Your task to perform on an android device: turn vacation reply on in the gmail app Image 0: 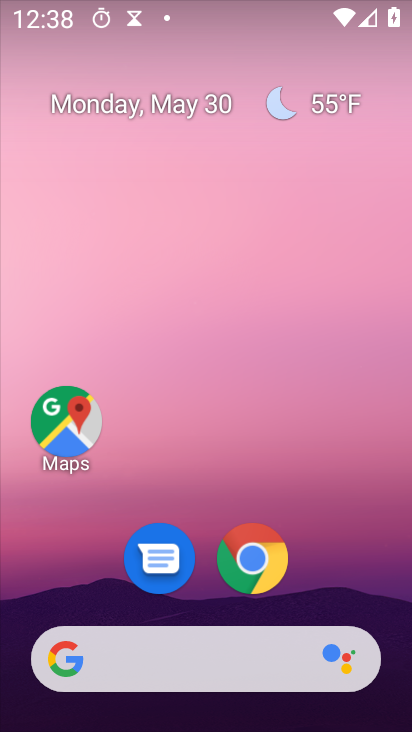
Step 0: drag from (371, 413) to (407, 117)
Your task to perform on an android device: turn vacation reply on in the gmail app Image 1: 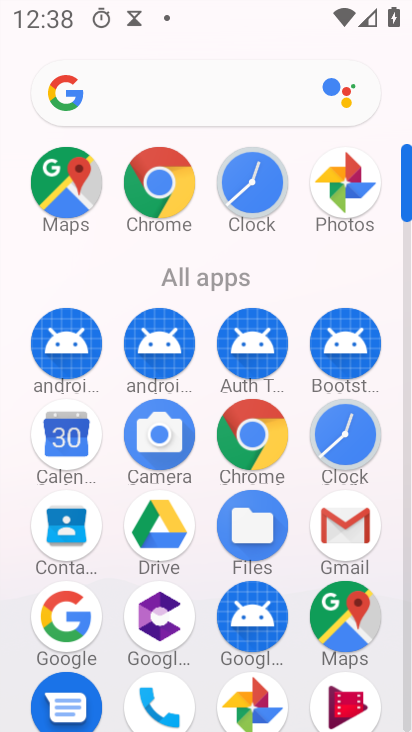
Step 1: click (342, 511)
Your task to perform on an android device: turn vacation reply on in the gmail app Image 2: 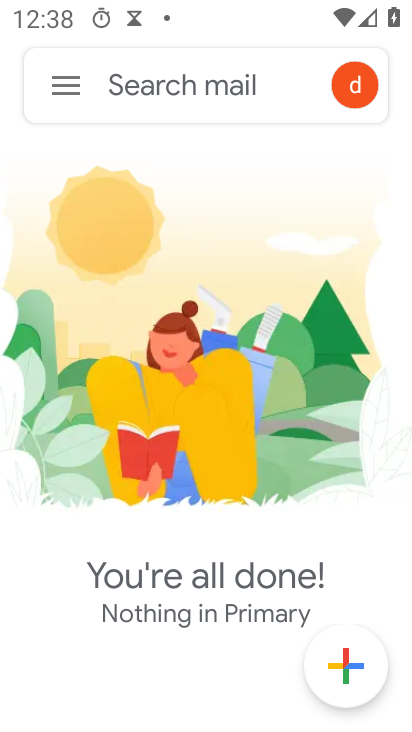
Step 2: click (69, 93)
Your task to perform on an android device: turn vacation reply on in the gmail app Image 3: 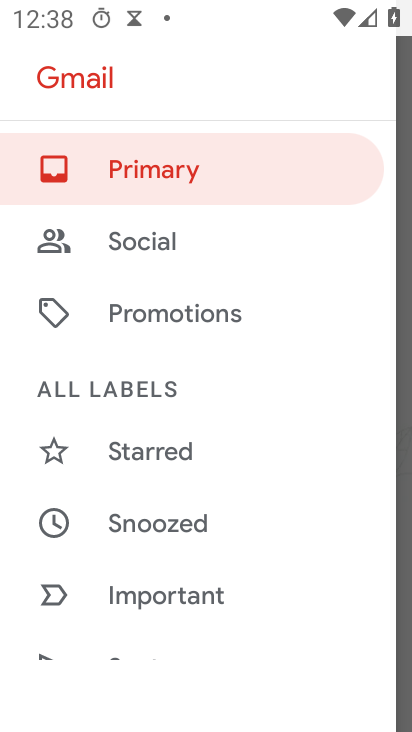
Step 3: drag from (131, 556) to (200, 185)
Your task to perform on an android device: turn vacation reply on in the gmail app Image 4: 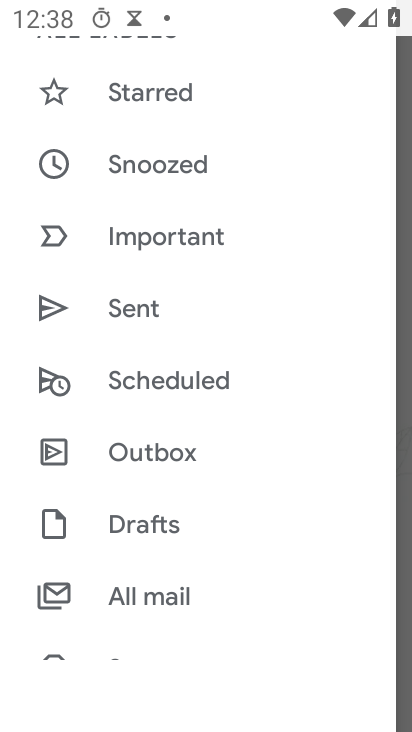
Step 4: drag from (168, 561) to (220, 145)
Your task to perform on an android device: turn vacation reply on in the gmail app Image 5: 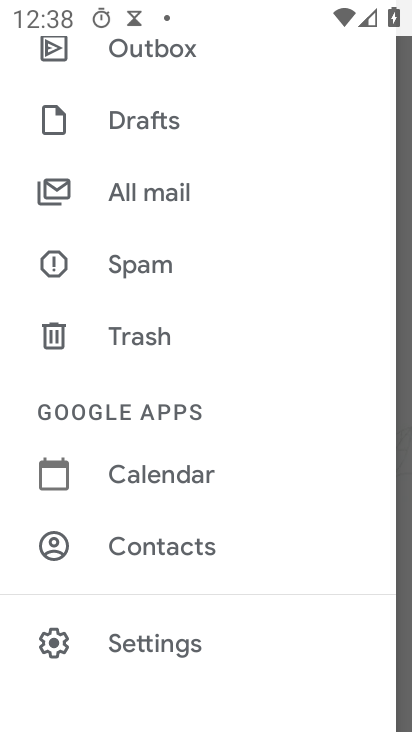
Step 5: click (132, 626)
Your task to perform on an android device: turn vacation reply on in the gmail app Image 6: 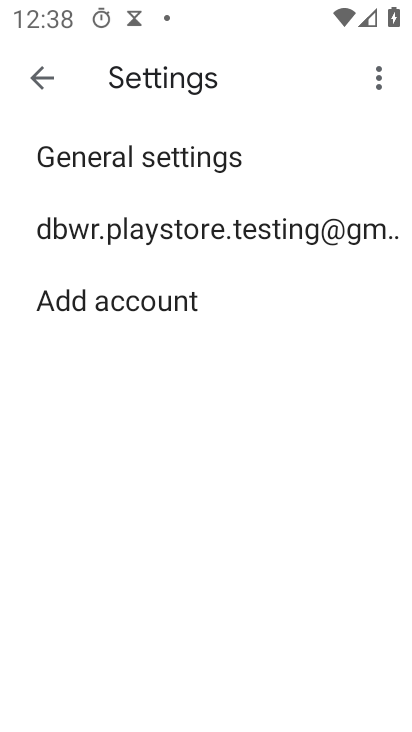
Step 6: click (86, 247)
Your task to perform on an android device: turn vacation reply on in the gmail app Image 7: 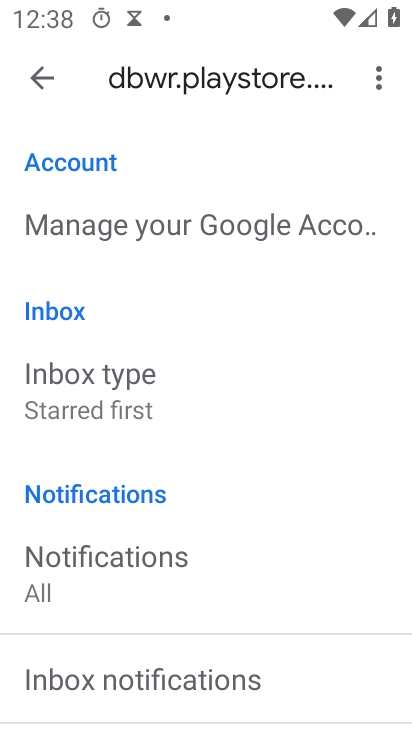
Step 7: drag from (112, 582) to (160, 172)
Your task to perform on an android device: turn vacation reply on in the gmail app Image 8: 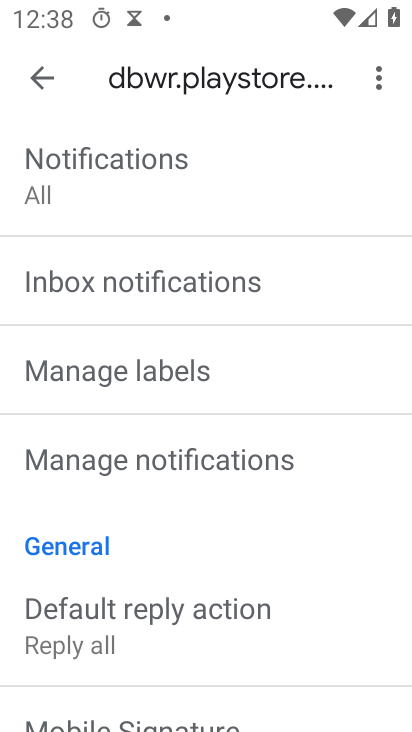
Step 8: drag from (172, 626) to (226, 199)
Your task to perform on an android device: turn vacation reply on in the gmail app Image 9: 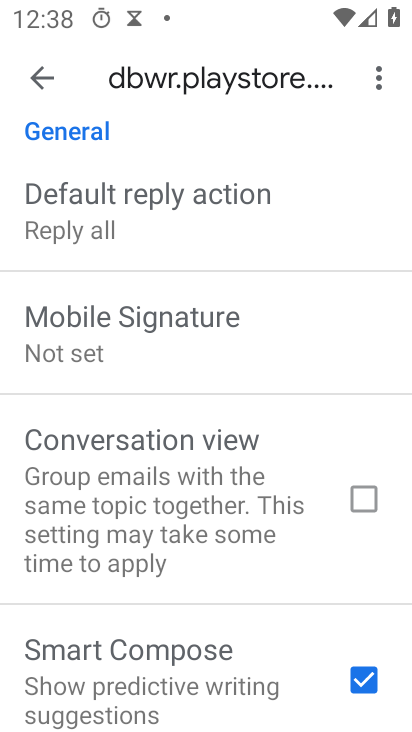
Step 9: drag from (147, 590) to (248, 75)
Your task to perform on an android device: turn vacation reply on in the gmail app Image 10: 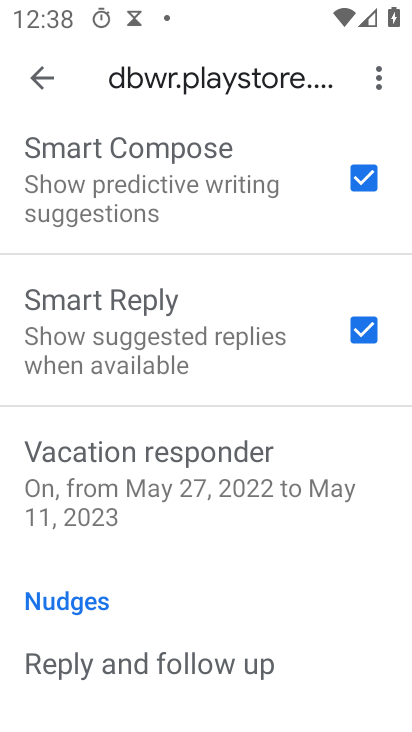
Step 10: drag from (161, 536) to (207, 357)
Your task to perform on an android device: turn vacation reply on in the gmail app Image 11: 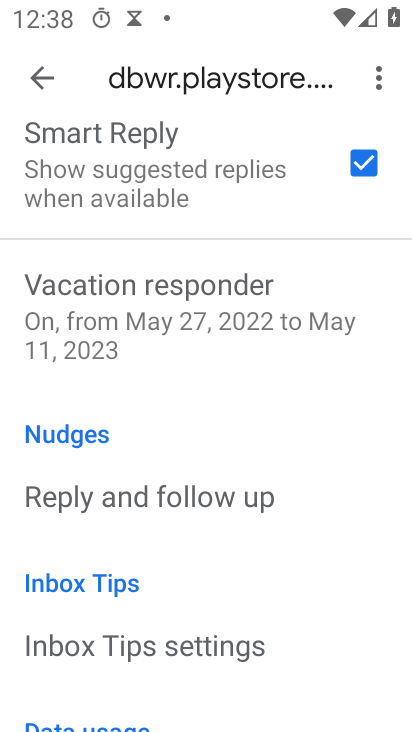
Step 11: click (180, 315)
Your task to perform on an android device: turn vacation reply on in the gmail app Image 12: 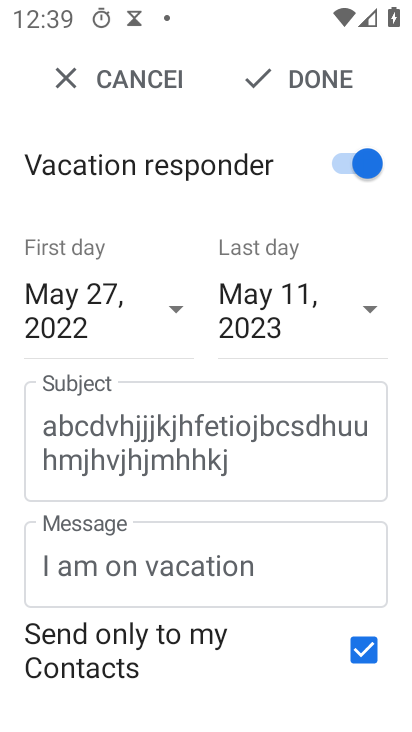
Step 12: task complete